Your task to perform on an android device: set default search engine in the chrome app Image 0: 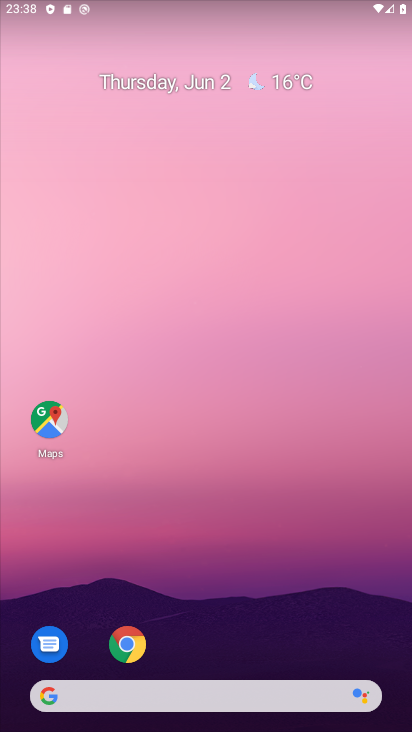
Step 0: click (40, 427)
Your task to perform on an android device: set default search engine in the chrome app Image 1: 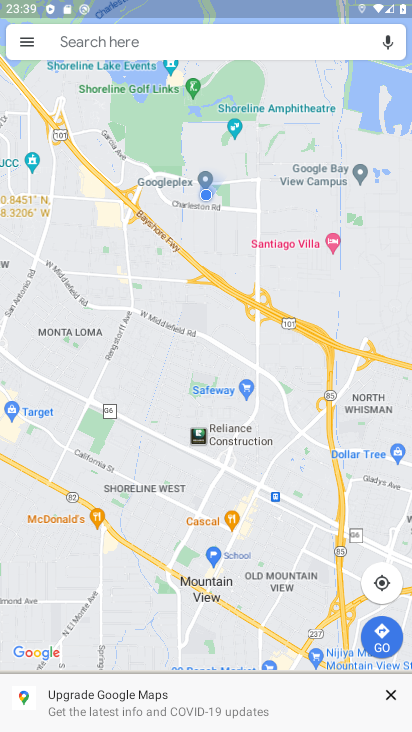
Step 1: press home button
Your task to perform on an android device: set default search engine in the chrome app Image 2: 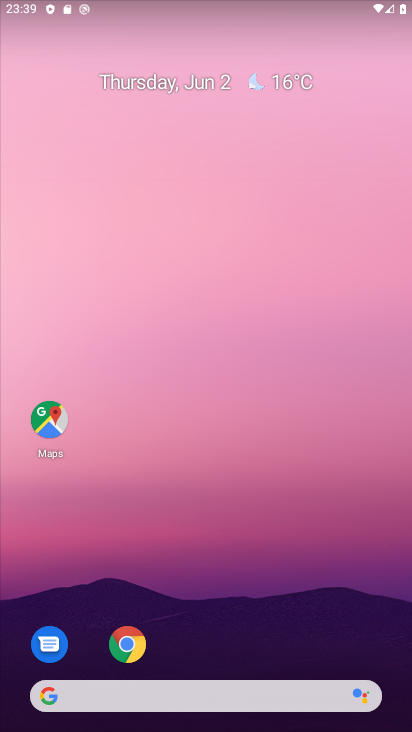
Step 2: drag from (236, 455) to (273, 130)
Your task to perform on an android device: set default search engine in the chrome app Image 3: 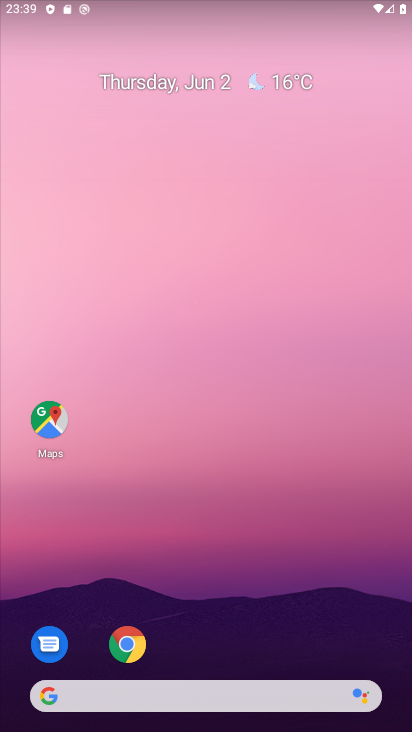
Step 3: drag from (180, 630) to (216, 149)
Your task to perform on an android device: set default search engine in the chrome app Image 4: 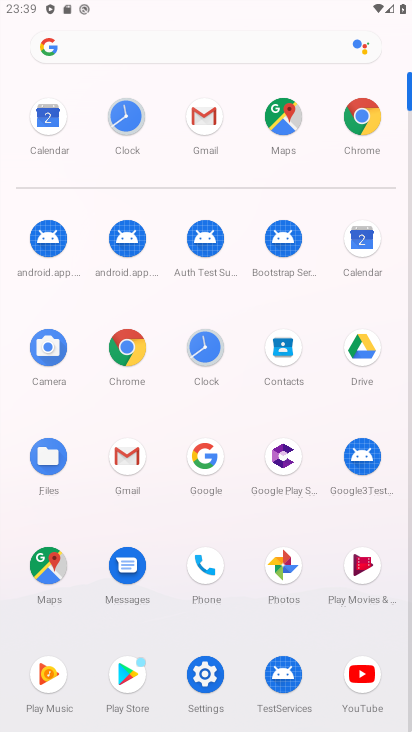
Step 4: click (363, 119)
Your task to perform on an android device: set default search engine in the chrome app Image 5: 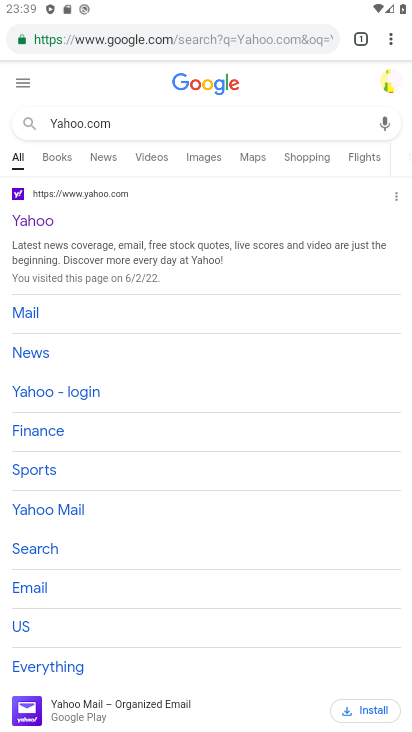
Step 5: click (25, 79)
Your task to perform on an android device: set default search engine in the chrome app Image 6: 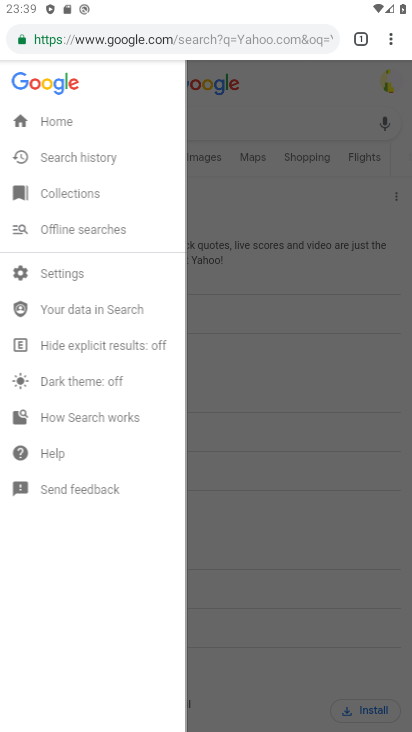
Step 6: click (58, 264)
Your task to perform on an android device: set default search engine in the chrome app Image 7: 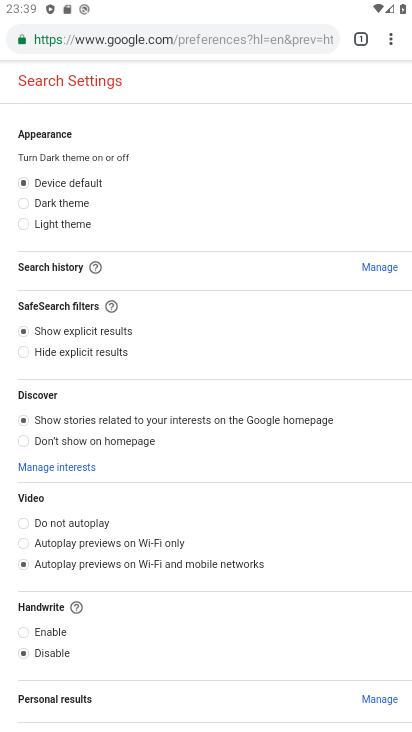
Step 7: press back button
Your task to perform on an android device: set default search engine in the chrome app Image 8: 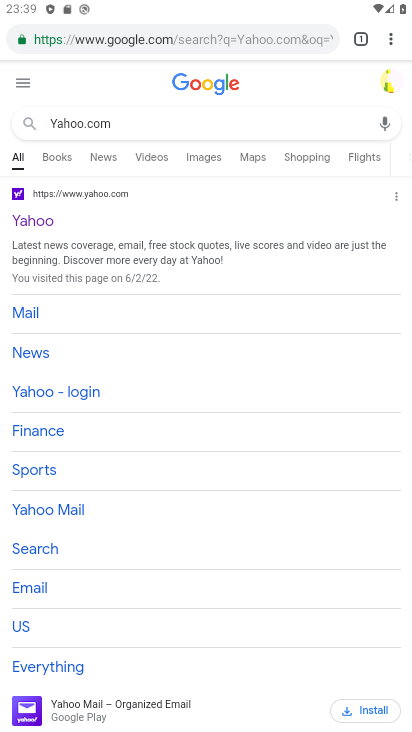
Step 8: click (393, 40)
Your task to perform on an android device: set default search engine in the chrome app Image 9: 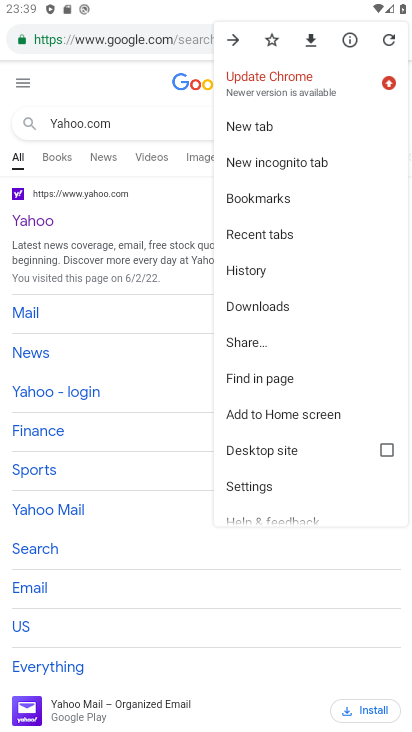
Step 9: click (265, 485)
Your task to perform on an android device: set default search engine in the chrome app Image 10: 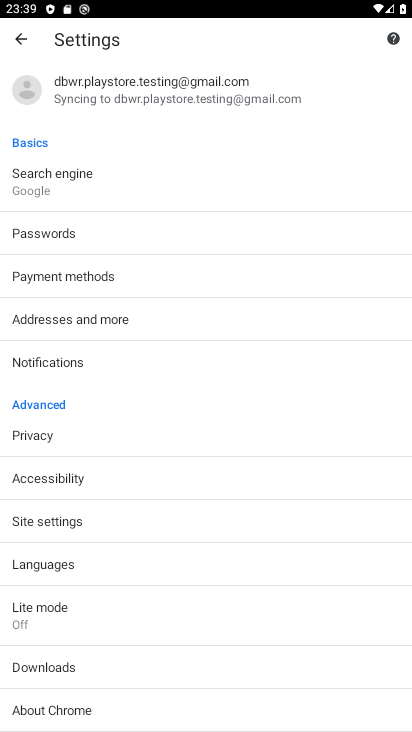
Step 10: click (24, 171)
Your task to perform on an android device: set default search engine in the chrome app Image 11: 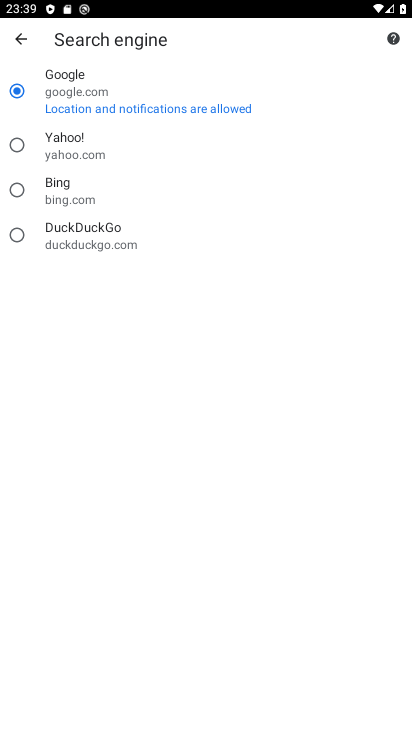
Step 11: task complete